Your task to perform on an android device: check the backup settings in the google photos Image 0: 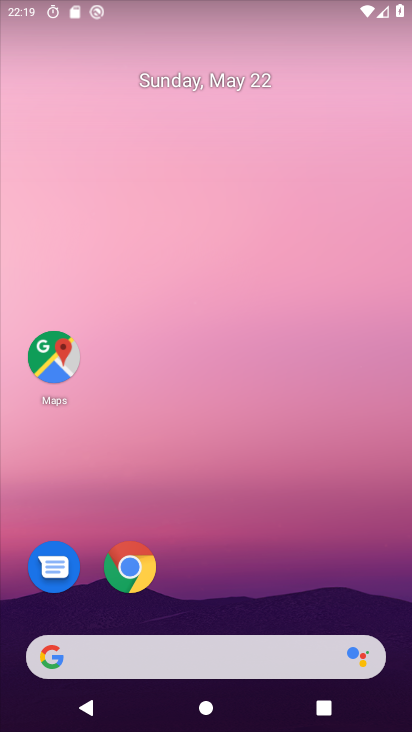
Step 0: drag from (244, 611) to (210, 4)
Your task to perform on an android device: check the backup settings in the google photos Image 1: 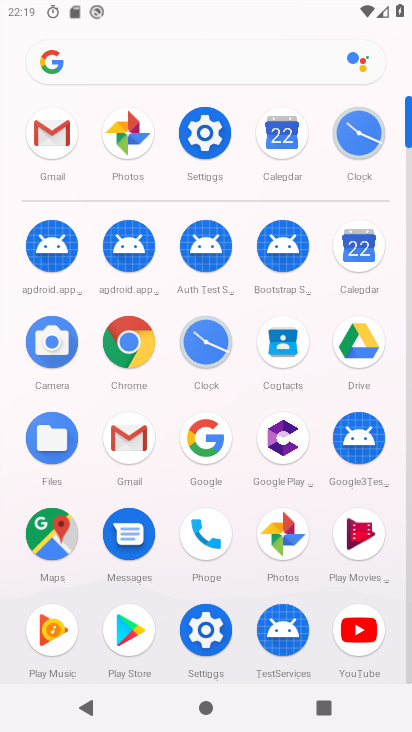
Step 1: click (282, 530)
Your task to perform on an android device: check the backup settings in the google photos Image 2: 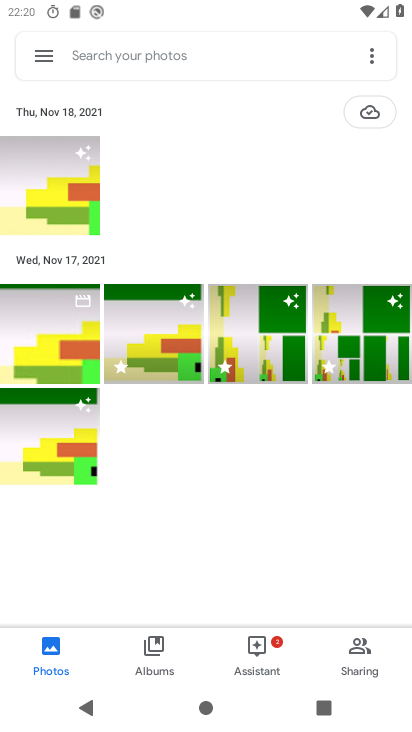
Step 2: click (39, 57)
Your task to perform on an android device: check the backup settings in the google photos Image 3: 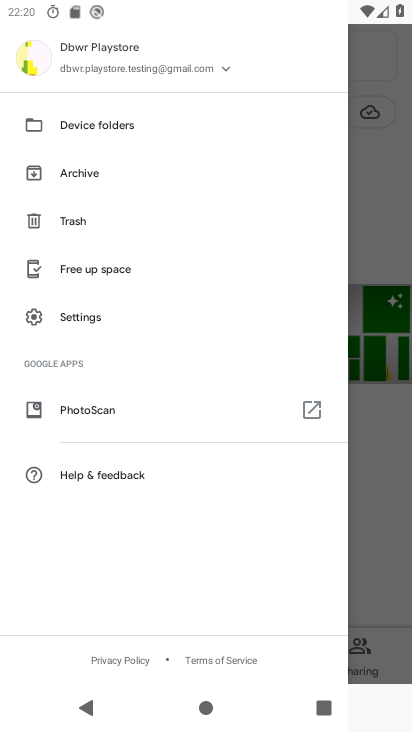
Step 3: click (107, 310)
Your task to perform on an android device: check the backup settings in the google photos Image 4: 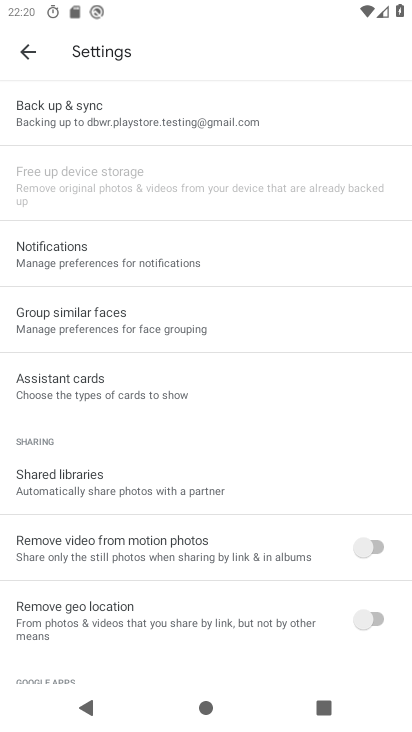
Step 4: click (96, 108)
Your task to perform on an android device: check the backup settings in the google photos Image 5: 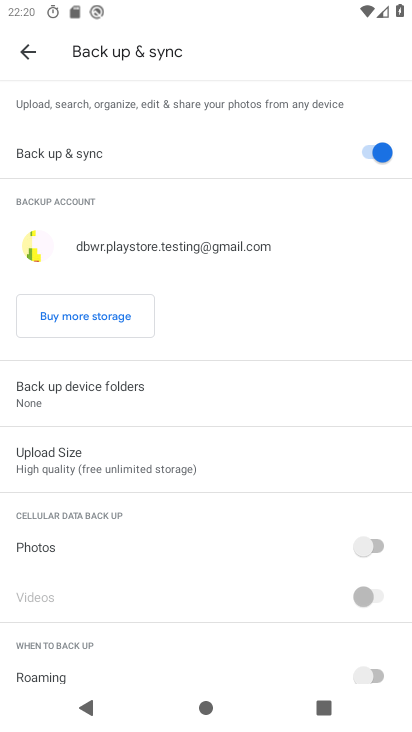
Step 5: task complete